Your task to perform on an android device: make emails show in primary in the gmail app Image 0: 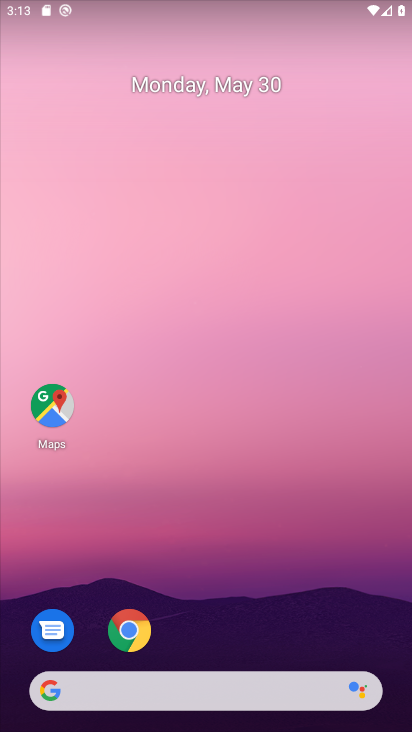
Step 0: press home button
Your task to perform on an android device: make emails show in primary in the gmail app Image 1: 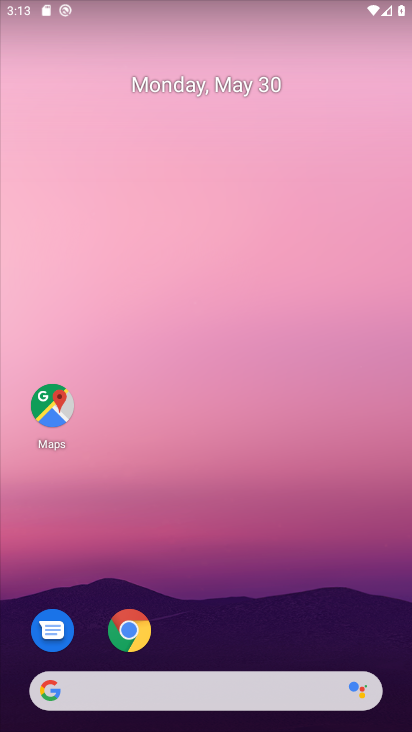
Step 1: drag from (300, 605) to (318, 388)
Your task to perform on an android device: make emails show in primary in the gmail app Image 2: 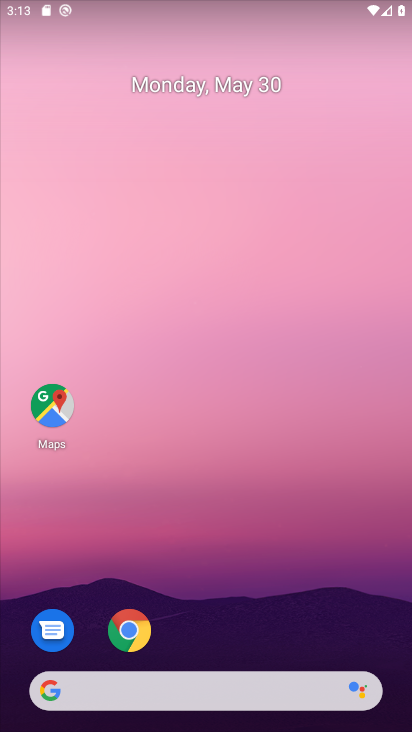
Step 2: drag from (307, 549) to (273, 200)
Your task to perform on an android device: make emails show in primary in the gmail app Image 3: 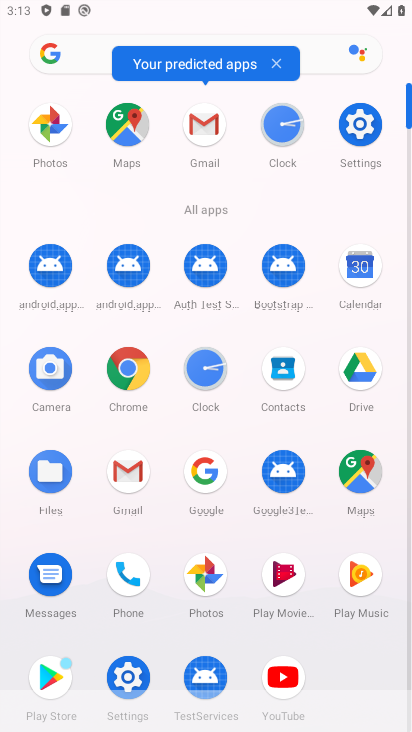
Step 3: click (143, 466)
Your task to perform on an android device: make emails show in primary in the gmail app Image 4: 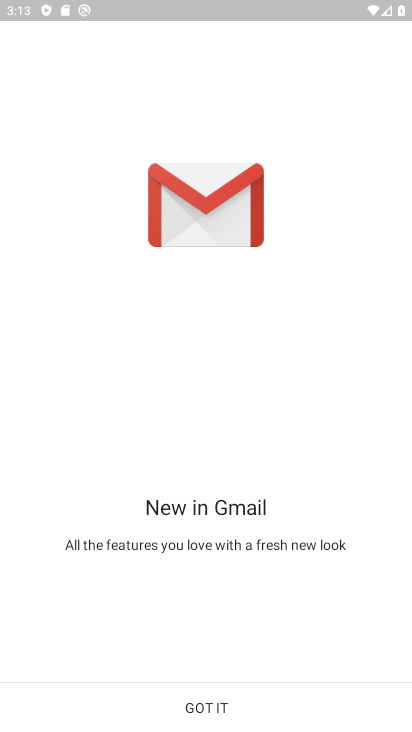
Step 4: click (185, 706)
Your task to perform on an android device: make emails show in primary in the gmail app Image 5: 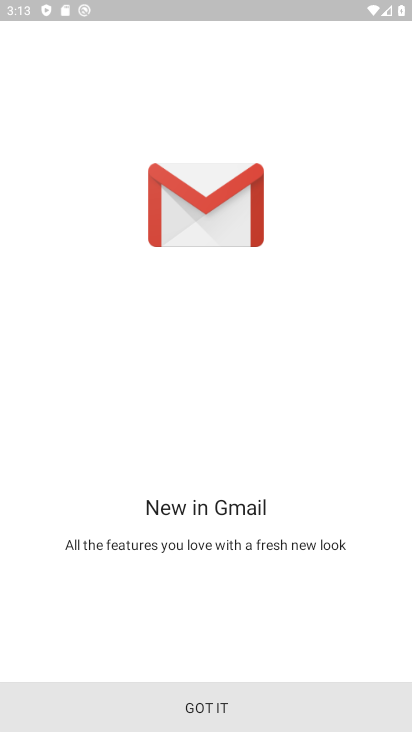
Step 5: click (185, 706)
Your task to perform on an android device: make emails show in primary in the gmail app Image 6: 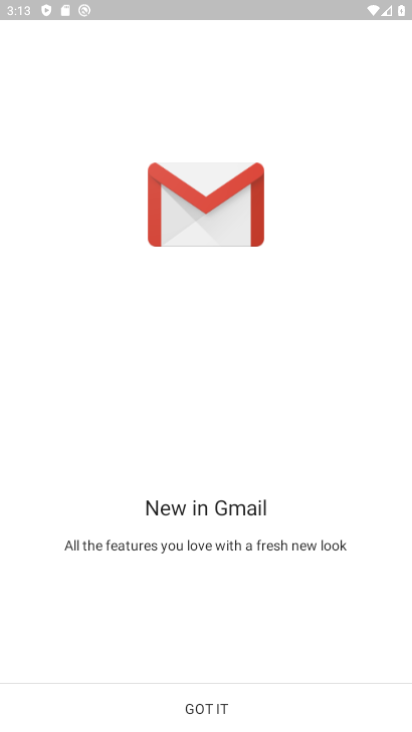
Step 6: click (185, 706)
Your task to perform on an android device: make emails show in primary in the gmail app Image 7: 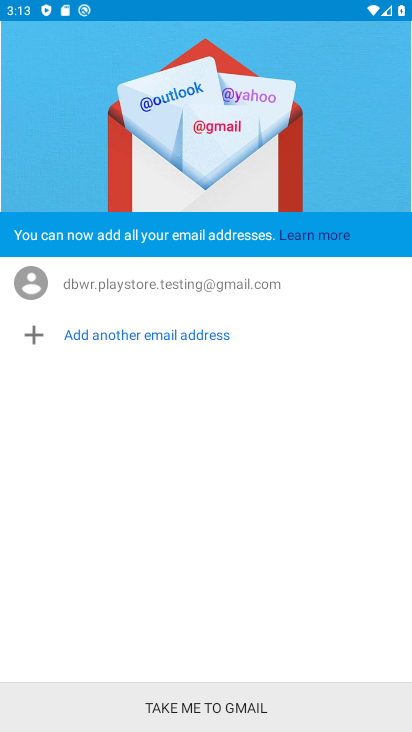
Step 7: click (185, 706)
Your task to perform on an android device: make emails show in primary in the gmail app Image 8: 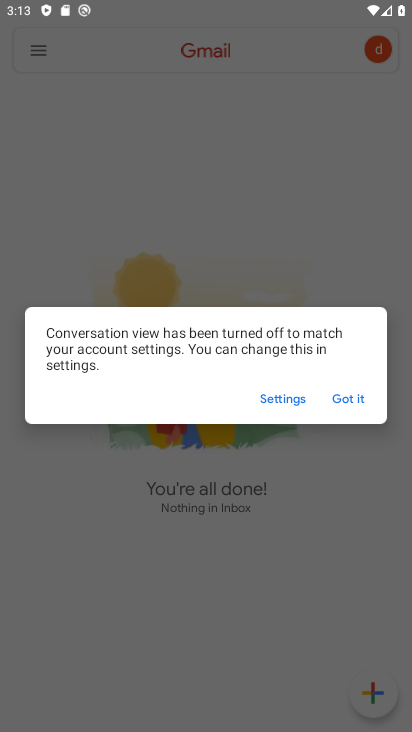
Step 8: click (354, 401)
Your task to perform on an android device: make emails show in primary in the gmail app Image 9: 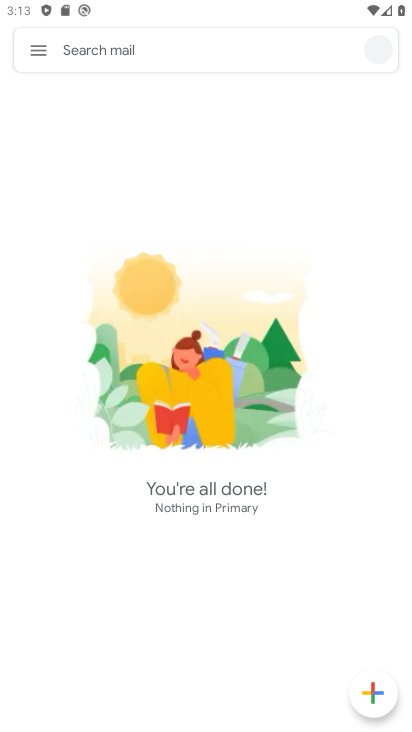
Step 9: click (44, 50)
Your task to perform on an android device: make emails show in primary in the gmail app Image 10: 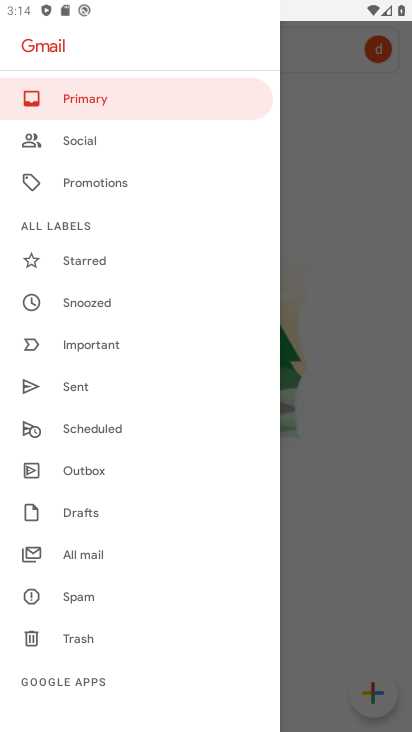
Step 10: task complete